Your task to perform on an android device: turn on the 24-hour format for clock Image 0: 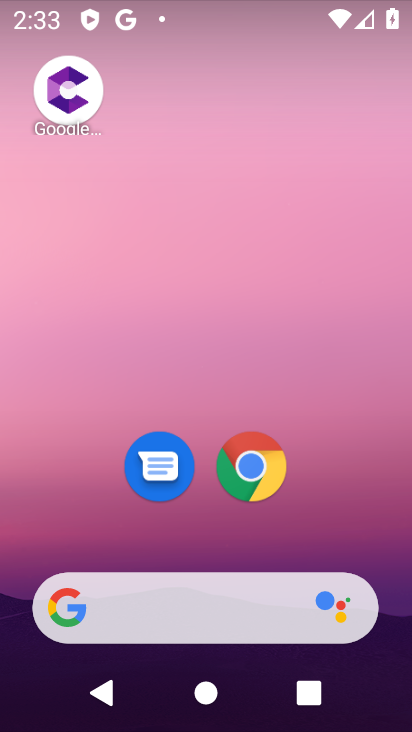
Step 0: drag from (255, 403) to (223, 174)
Your task to perform on an android device: turn on the 24-hour format for clock Image 1: 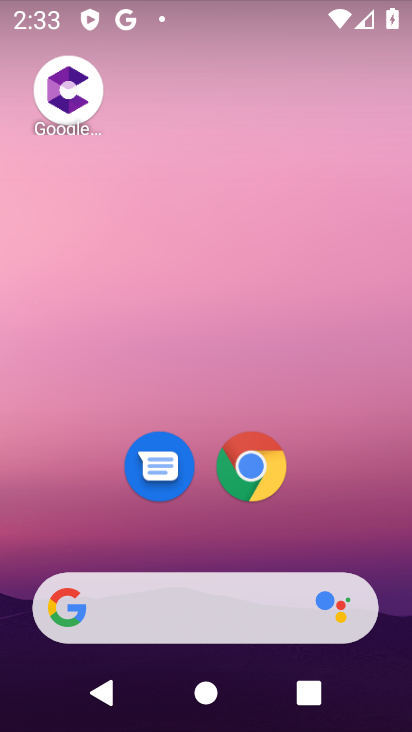
Step 1: drag from (188, 531) to (229, 240)
Your task to perform on an android device: turn on the 24-hour format for clock Image 2: 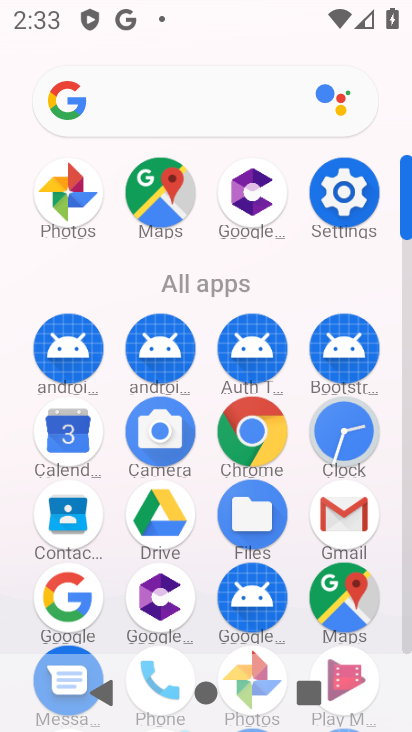
Step 2: click (340, 431)
Your task to perform on an android device: turn on the 24-hour format for clock Image 3: 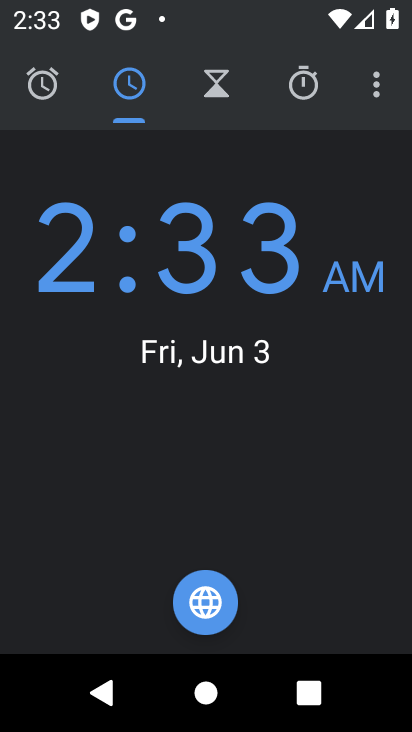
Step 3: click (374, 87)
Your task to perform on an android device: turn on the 24-hour format for clock Image 4: 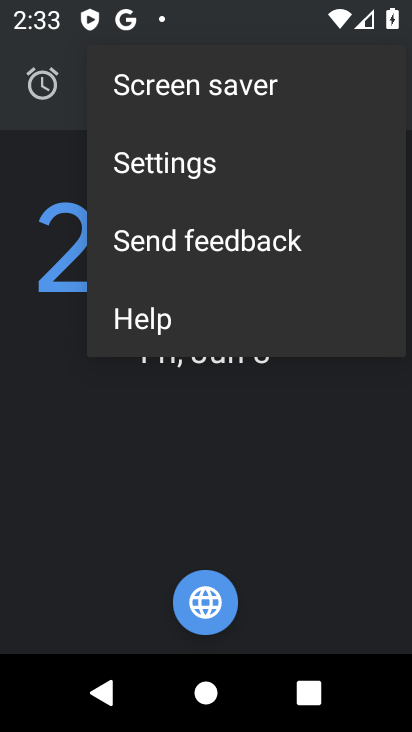
Step 4: click (153, 174)
Your task to perform on an android device: turn on the 24-hour format for clock Image 5: 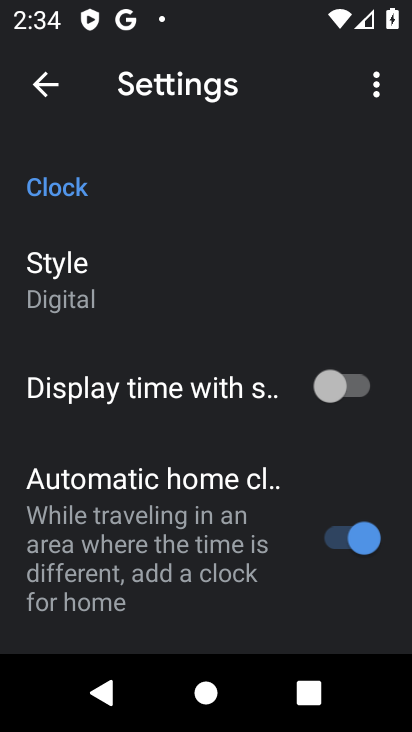
Step 5: drag from (216, 543) to (277, 258)
Your task to perform on an android device: turn on the 24-hour format for clock Image 6: 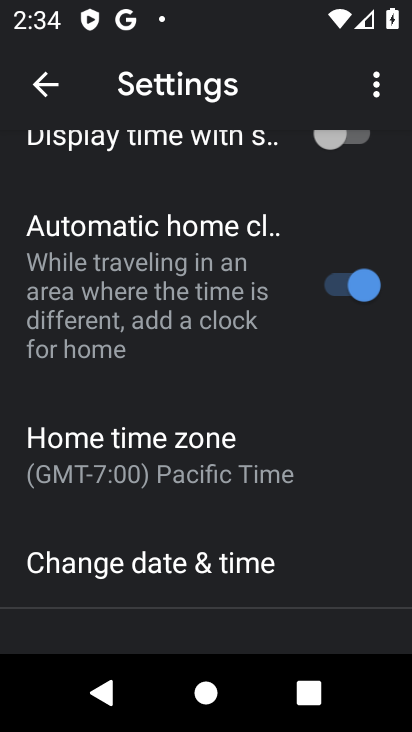
Step 6: drag from (235, 595) to (200, 292)
Your task to perform on an android device: turn on the 24-hour format for clock Image 7: 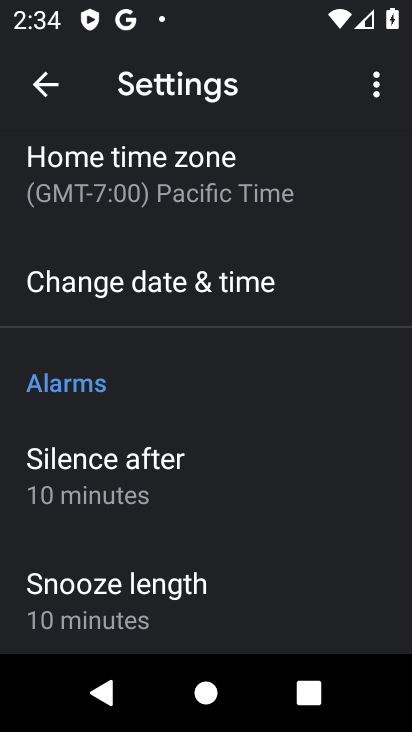
Step 7: click (161, 292)
Your task to perform on an android device: turn on the 24-hour format for clock Image 8: 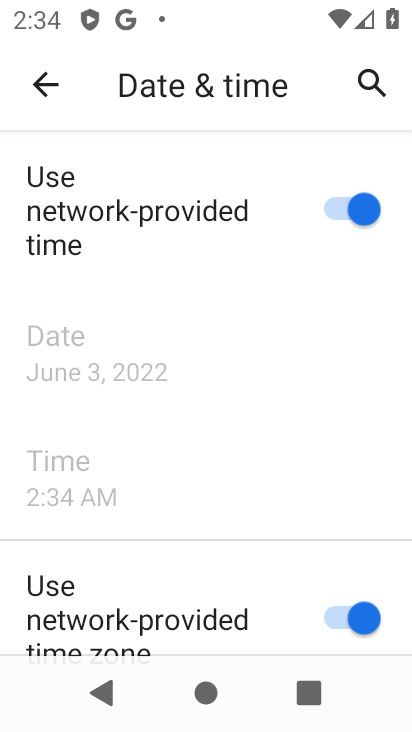
Step 8: drag from (207, 638) to (230, 324)
Your task to perform on an android device: turn on the 24-hour format for clock Image 9: 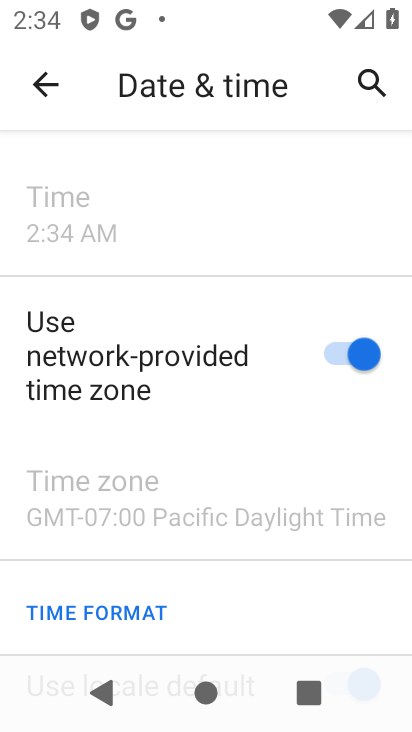
Step 9: drag from (217, 545) to (255, 217)
Your task to perform on an android device: turn on the 24-hour format for clock Image 10: 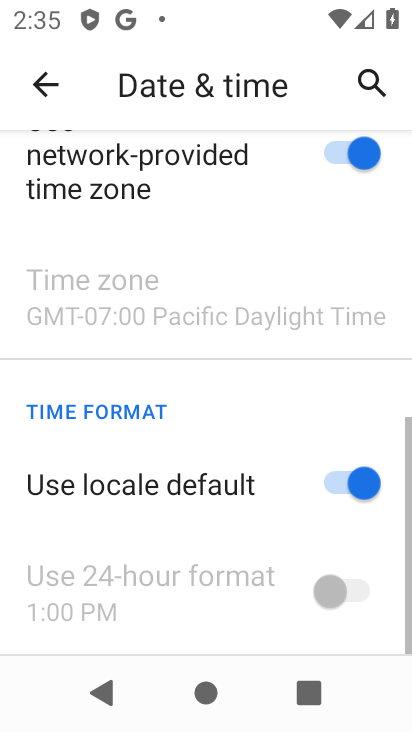
Step 10: click (331, 490)
Your task to perform on an android device: turn on the 24-hour format for clock Image 11: 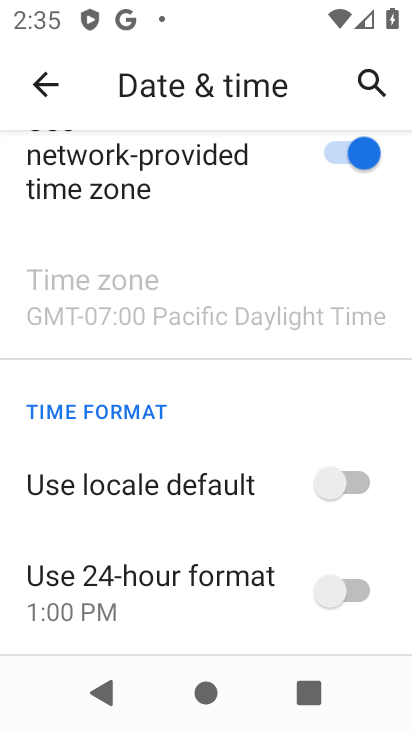
Step 11: click (374, 594)
Your task to perform on an android device: turn on the 24-hour format for clock Image 12: 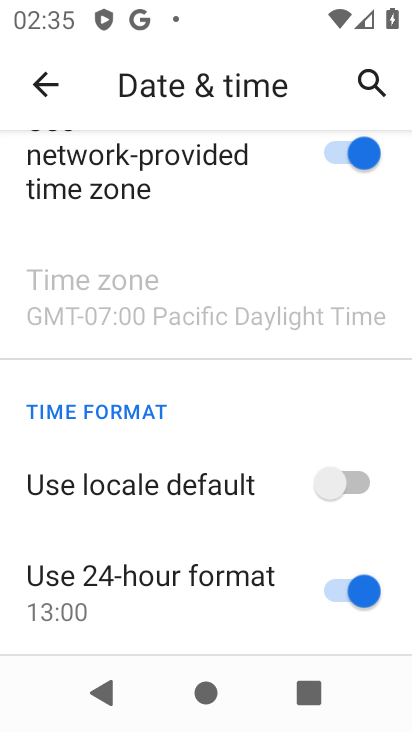
Step 12: task complete